Your task to perform on an android device: star an email in the gmail app Image 0: 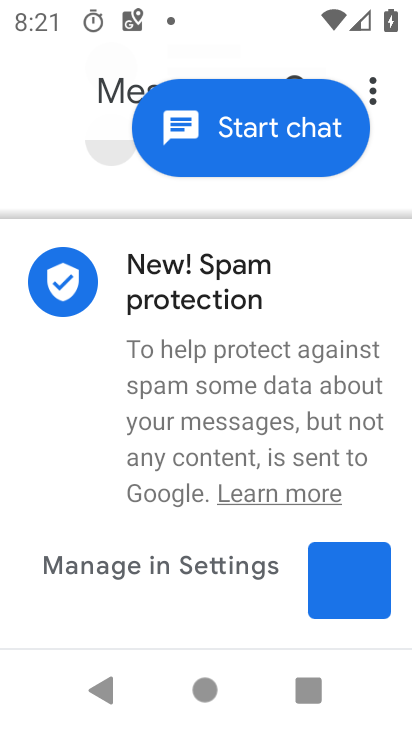
Step 0: press home button
Your task to perform on an android device: star an email in the gmail app Image 1: 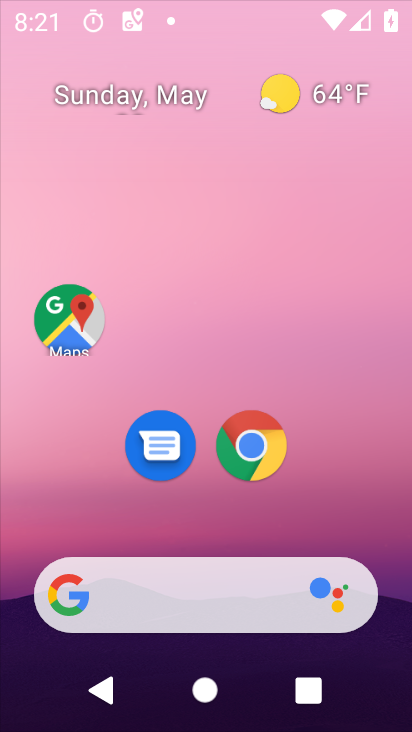
Step 1: drag from (209, 613) to (377, 17)
Your task to perform on an android device: star an email in the gmail app Image 2: 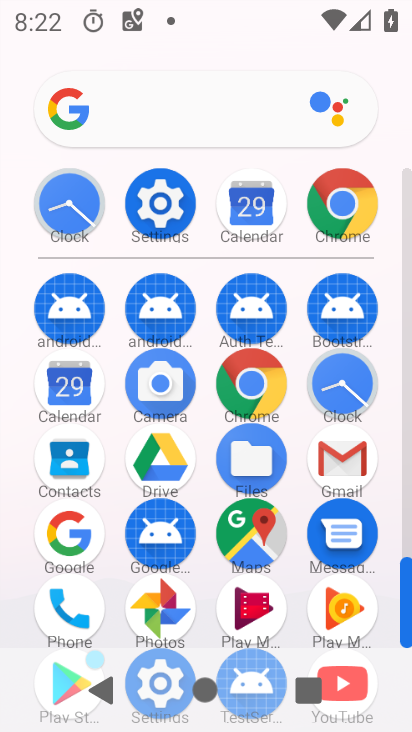
Step 2: click (336, 448)
Your task to perform on an android device: star an email in the gmail app Image 3: 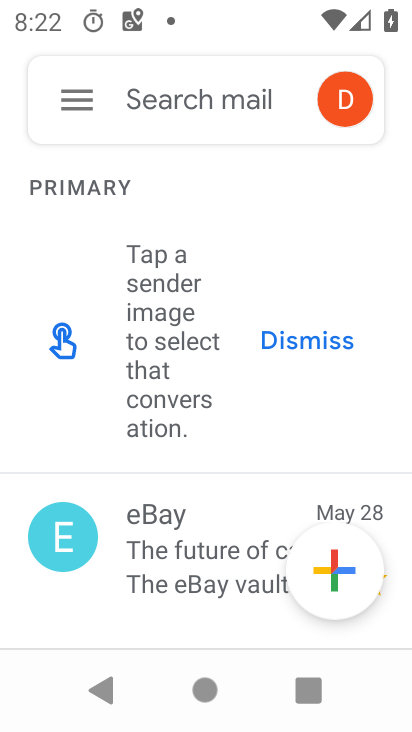
Step 3: drag from (220, 579) to (324, 102)
Your task to perform on an android device: star an email in the gmail app Image 4: 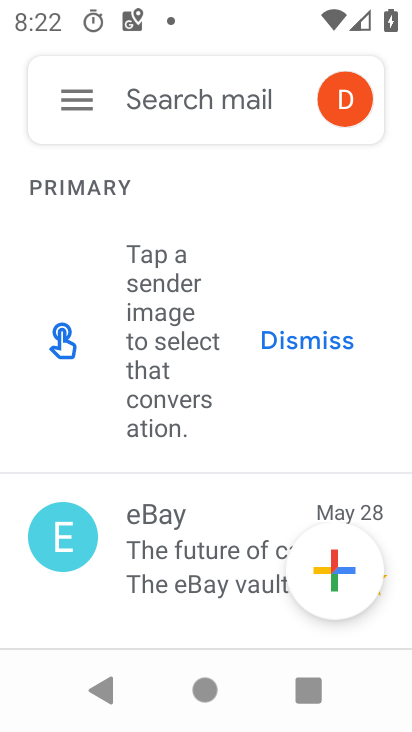
Step 4: drag from (235, 514) to (313, 234)
Your task to perform on an android device: star an email in the gmail app Image 5: 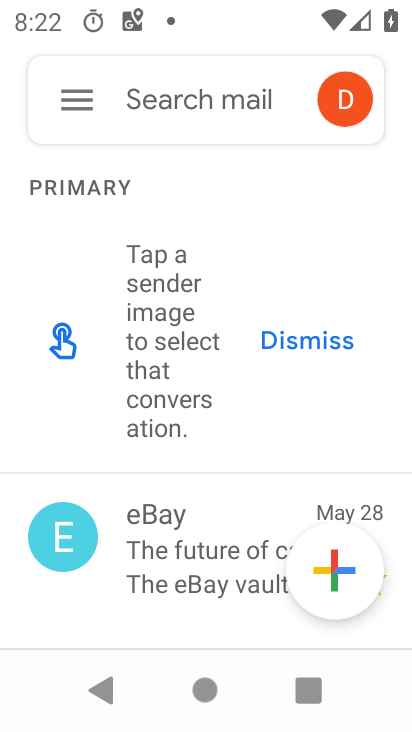
Step 5: click (73, 116)
Your task to perform on an android device: star an email in the gmail app Image 6: 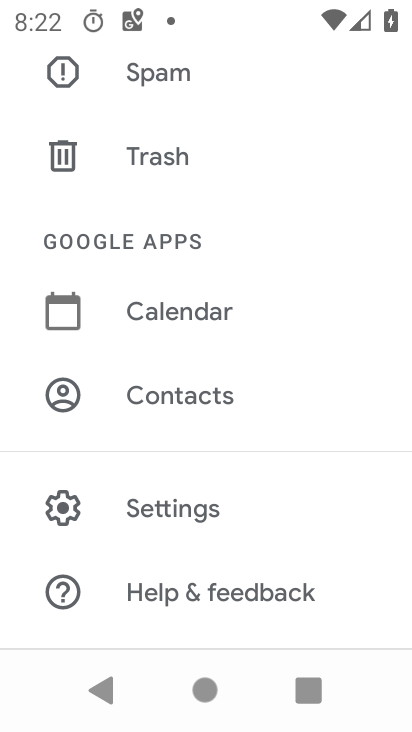
Step 6: press back button
Your task to perform on an android device: star an email in the gmail app Image 7: 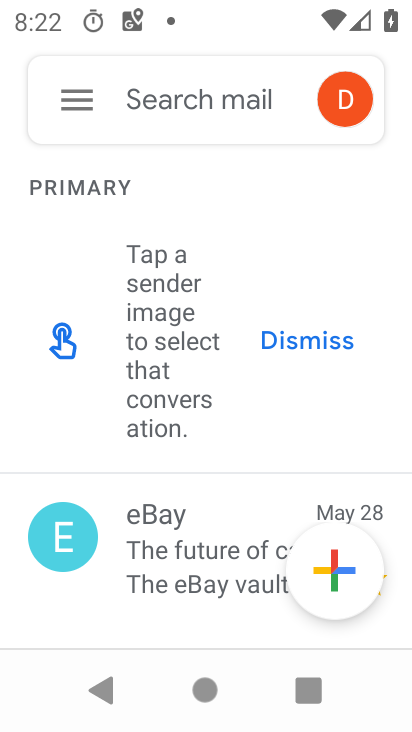
Step 7: click (134, 514)
Your task to perform on an android device: star an email in the gmail app Image 8: 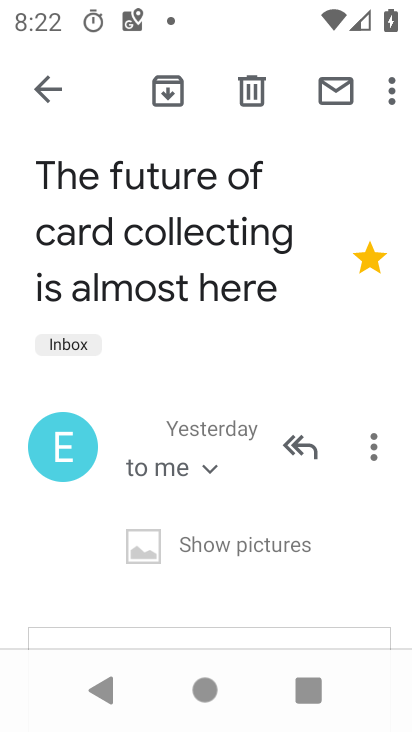
Step 8: task complete